Your task to perform on an android device: Go to Reddit.com Image 0: 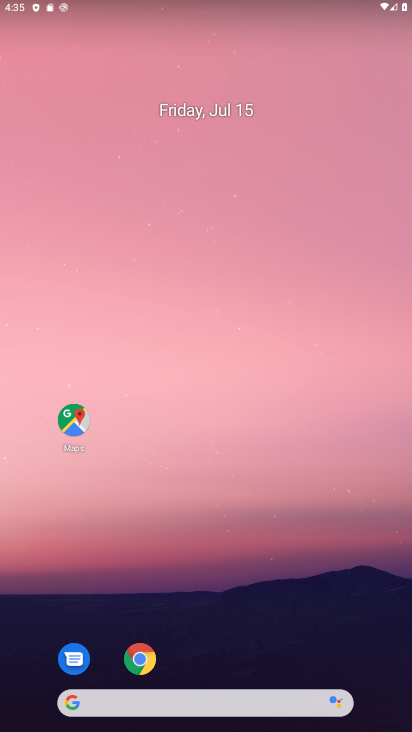
Step 0: click (150, 659)
Your task to perform on an android device: Go to Reddit.com Image 1: 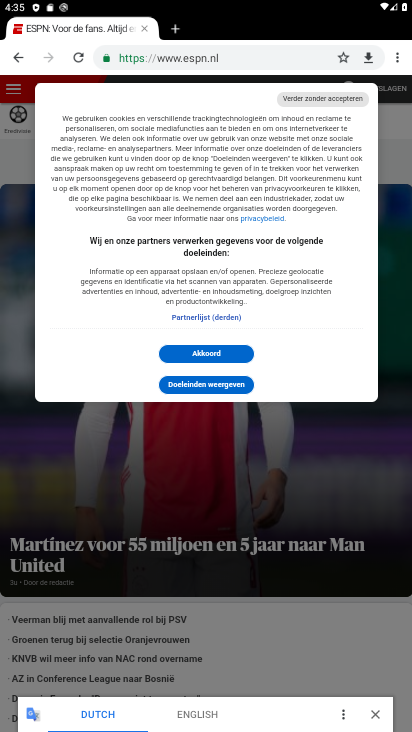
Step 1: click (215, 48)
Your task to perform on an android device: Go to Reddit.com Image 2: 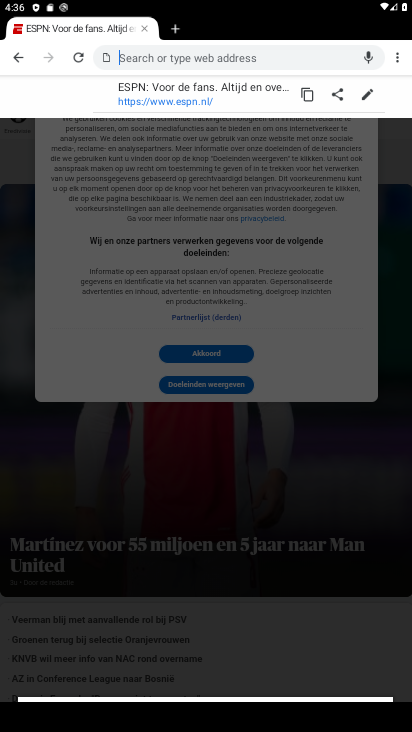
Step 2: type "reddit.com"
Your task to perform on an android device: Go to Reddit.com Image 3: 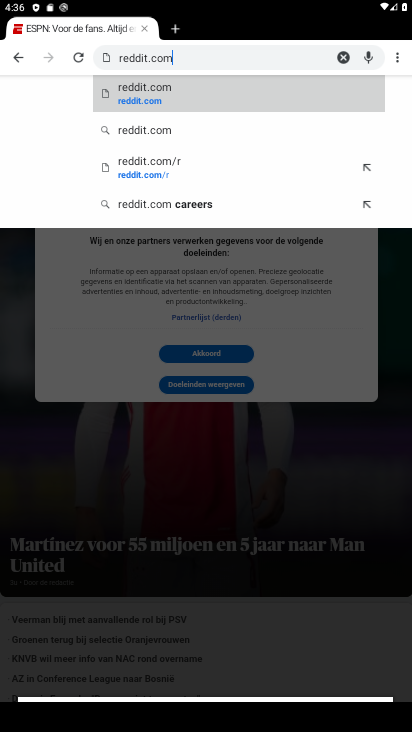
Step 3: click (315, 90)
Your task to perform on an android device: Go to Reddit.com Image 4: 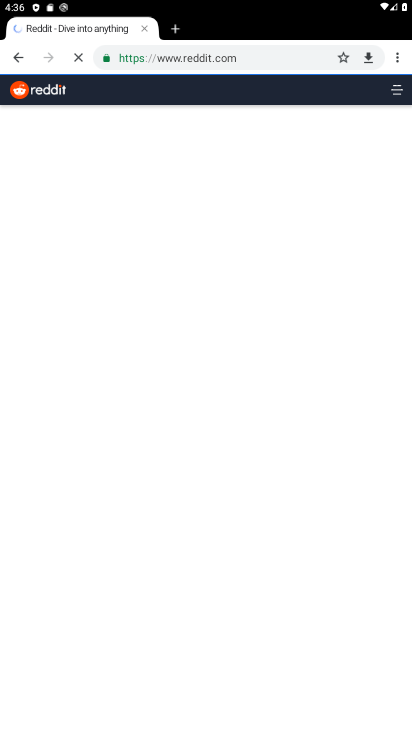
Step 4: task complete